Your task to perform on an android device: make emails show in primary in the gmail app Image 0: 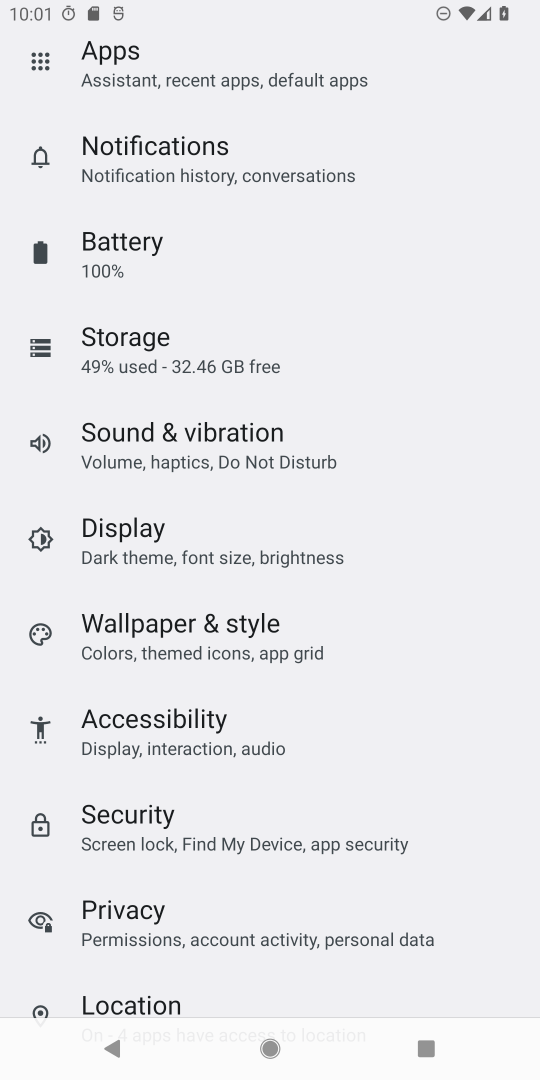
Step 0: press home button
Your task to perform on an android device: make emails show in primary in the gmail app Image 1: 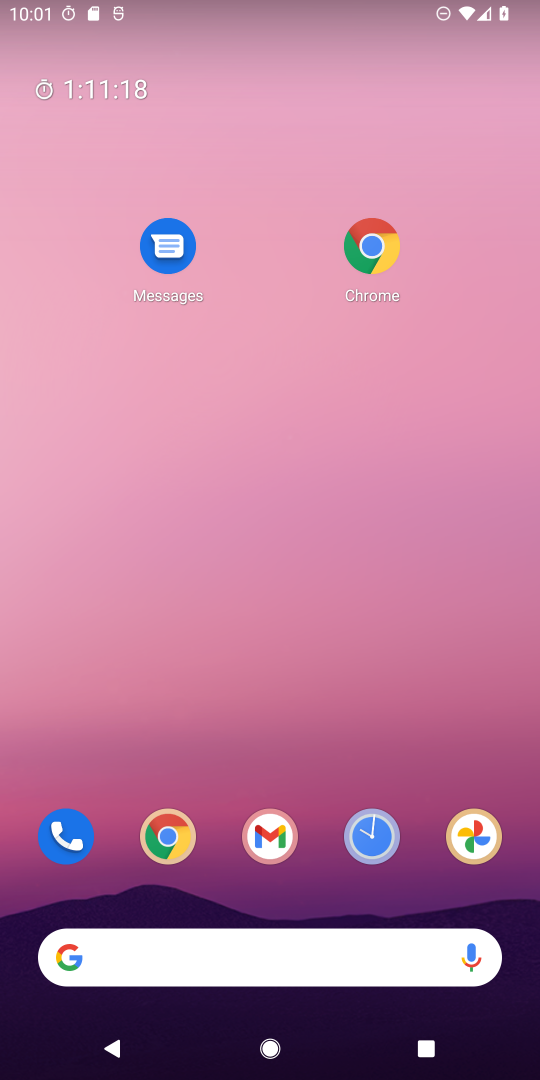
Step 1: drag from (315, 678) to (363, 187)
Your task to perform on an android device: make emails show in primary in the gmail app Image 2: 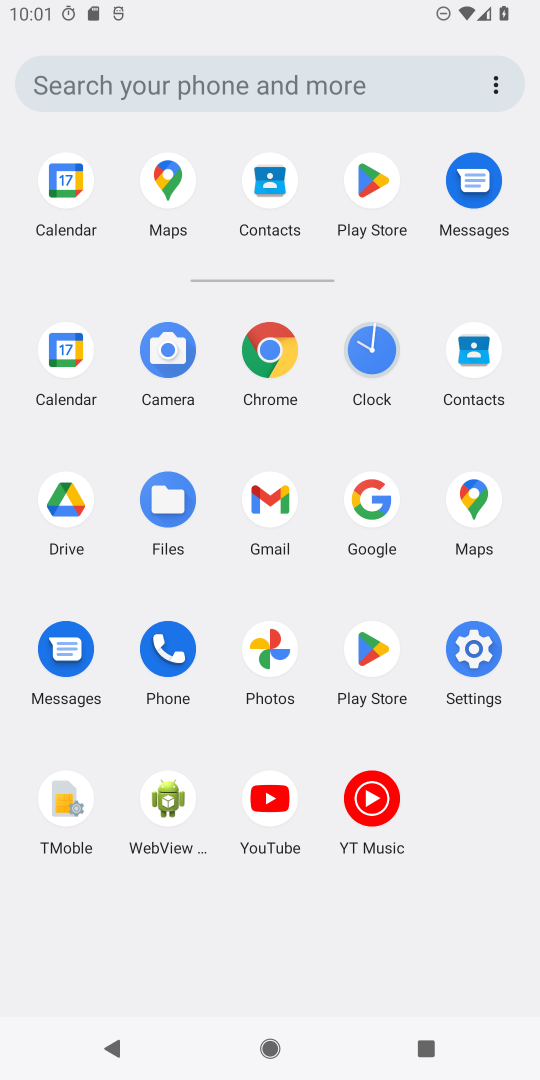
Step 2: click (247, 484)
Your task to perform on an android device: make emails show in primary in the gmail app Image 3: 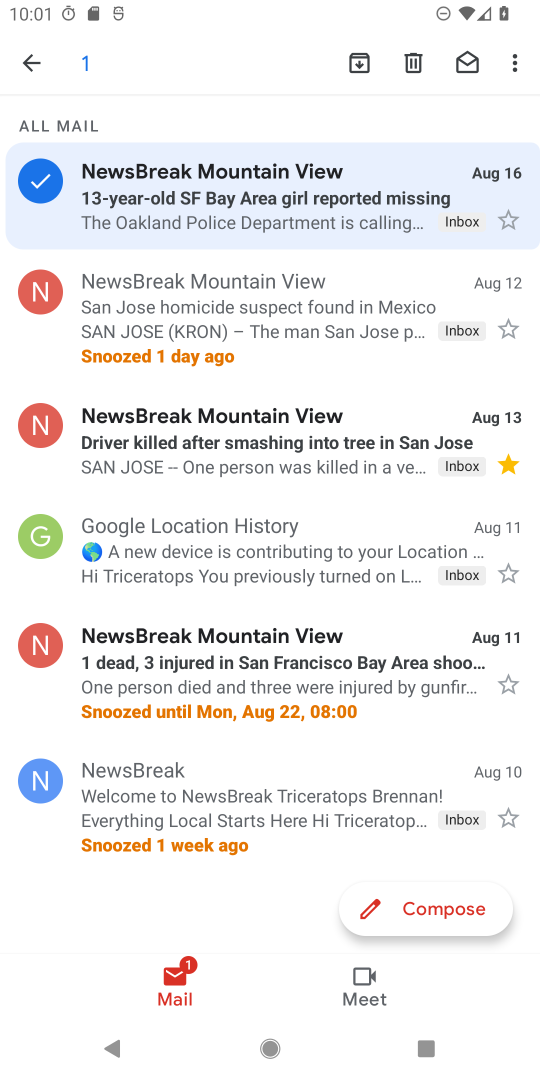
Step 3: click (25, 51)
Your task to perform on an android device: make emails show in primary in the gmail app Image 4: 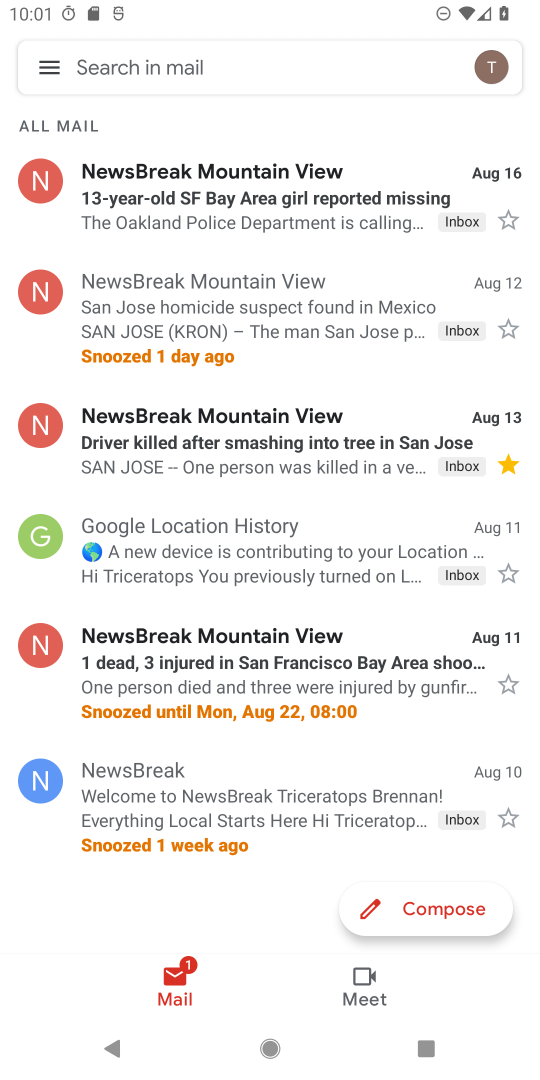
Step 4: click (47, 59)
Your task to perform on an android device: make emails show in primary in the gmail app Image 5: 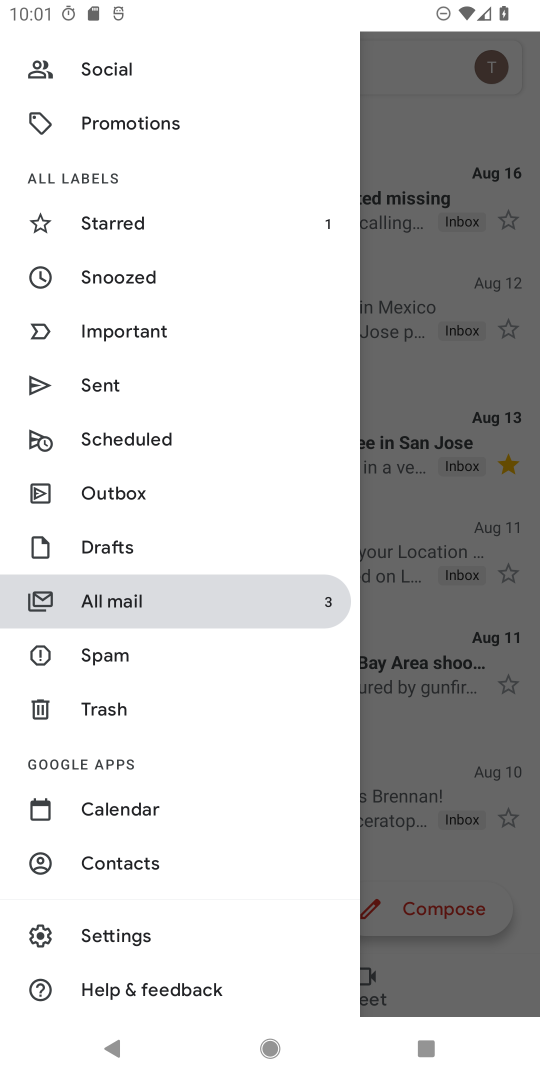
Step 5: click (138, 925)
Your task to perform on an android device: make emails show in primary in the gmail app Image 6: 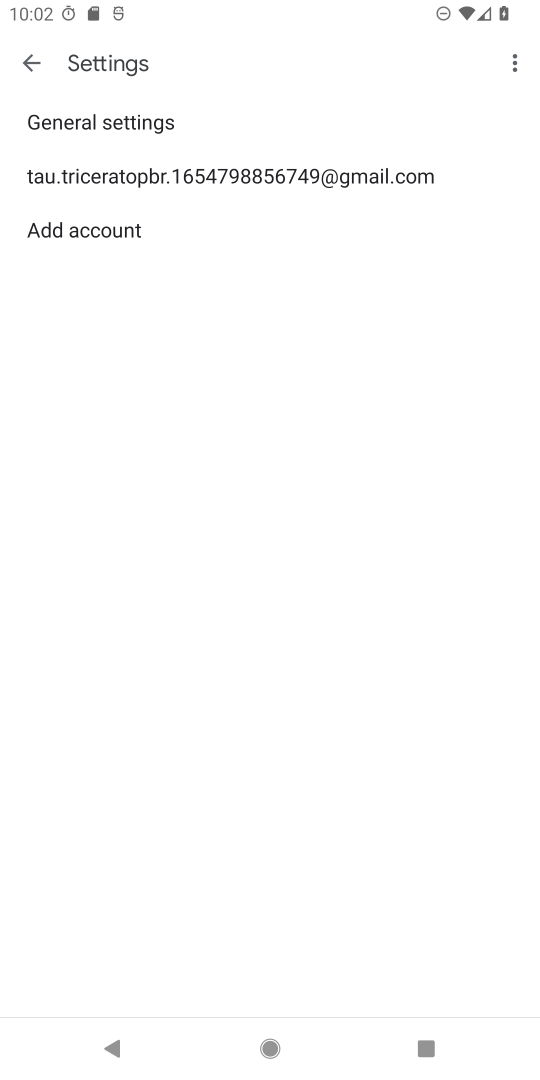
Step 6: click (155, 171)
Your task to perform on an android device: make emails show in primary in the gmail app Image 7: 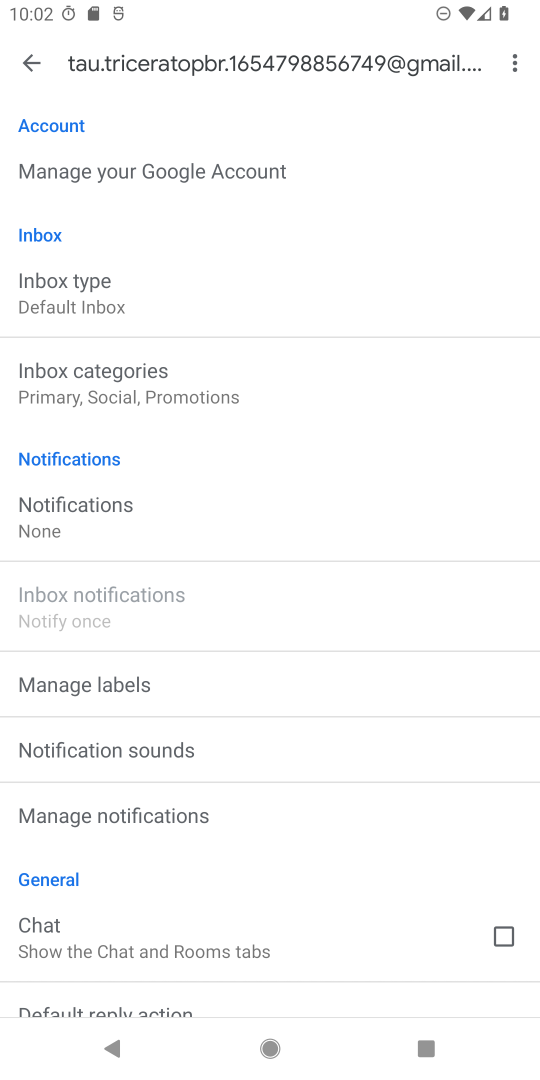
Step 7: click (77, 282)
Your task to perform on an android device: make emails show in primary in the gmail app Image 8: 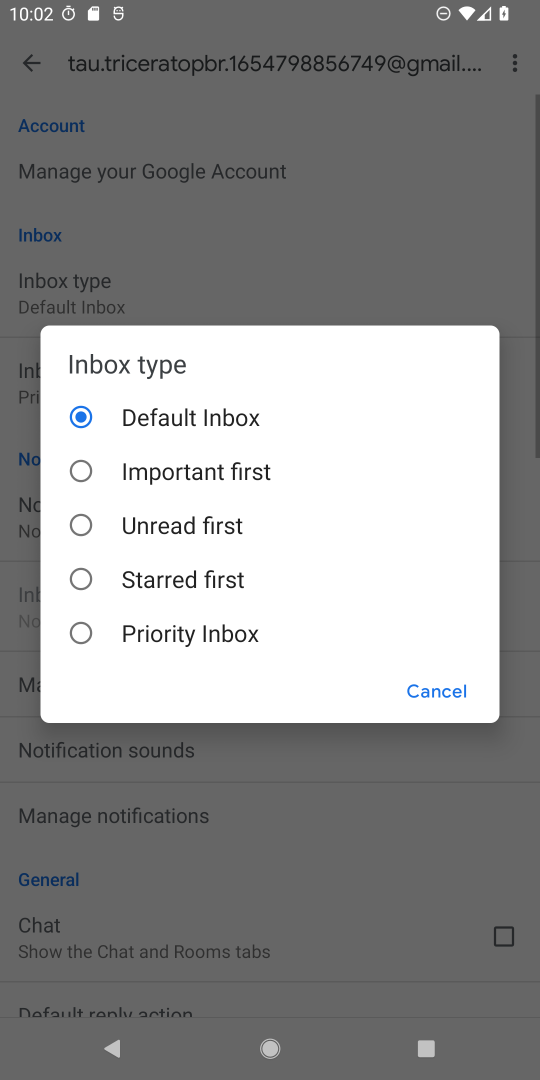
Step 8: click (297, 292)
Your task to perform on an android device: make emails show in primary in the gmail app Image 9: 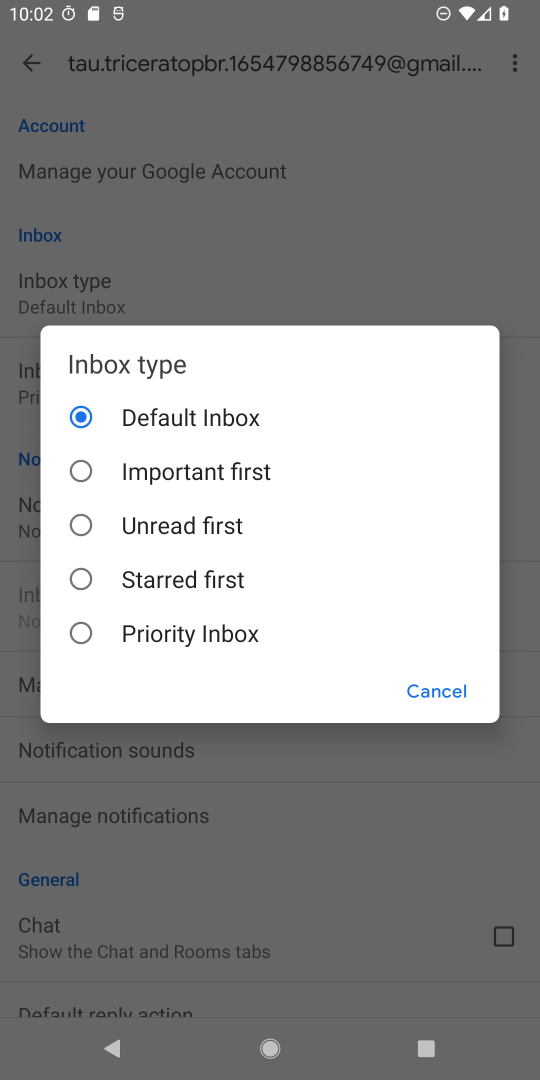
Step 9: click (2, 380)
Your task to perform on an android device: make emails show in primary in the gmail app Image 10: 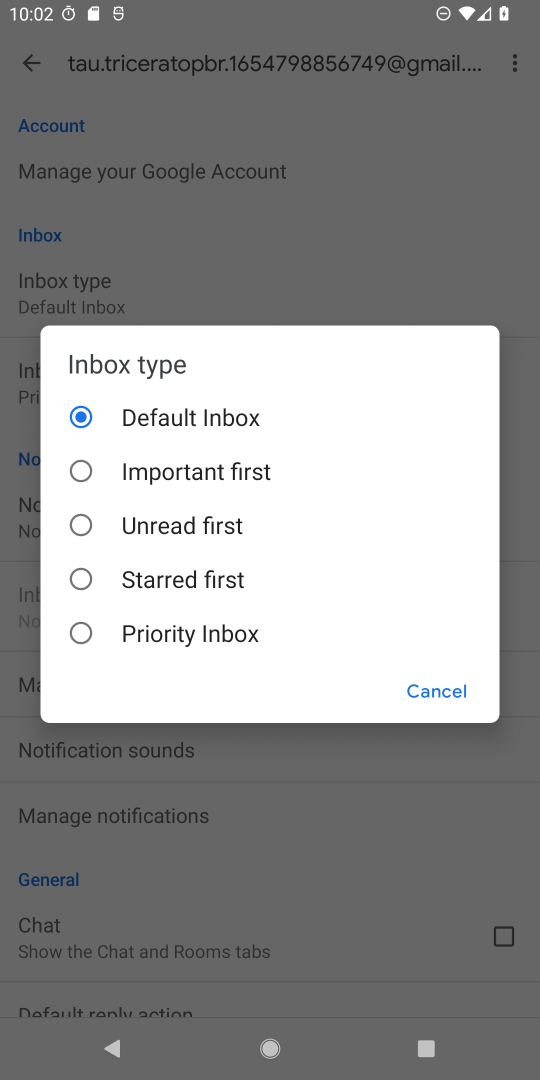
Step 10: click (10, 371)
Your task to perform on an android device: make emails show in primary in the gmail app Image 11: 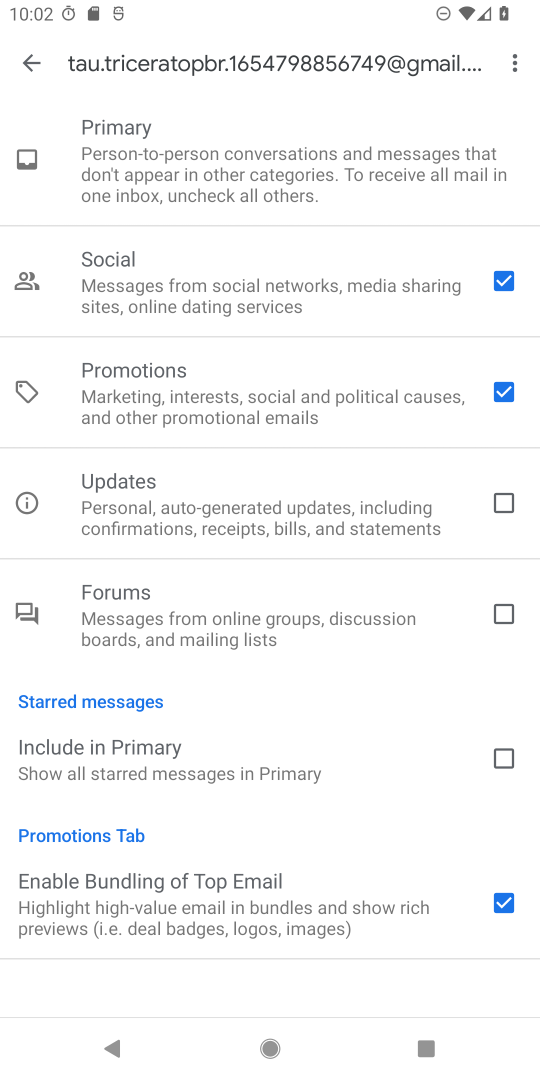
Step 11: drag from (227, 447) to (506, 743)
Your task to perform on an android device: make emails show in primary in the gmail app Image 12: 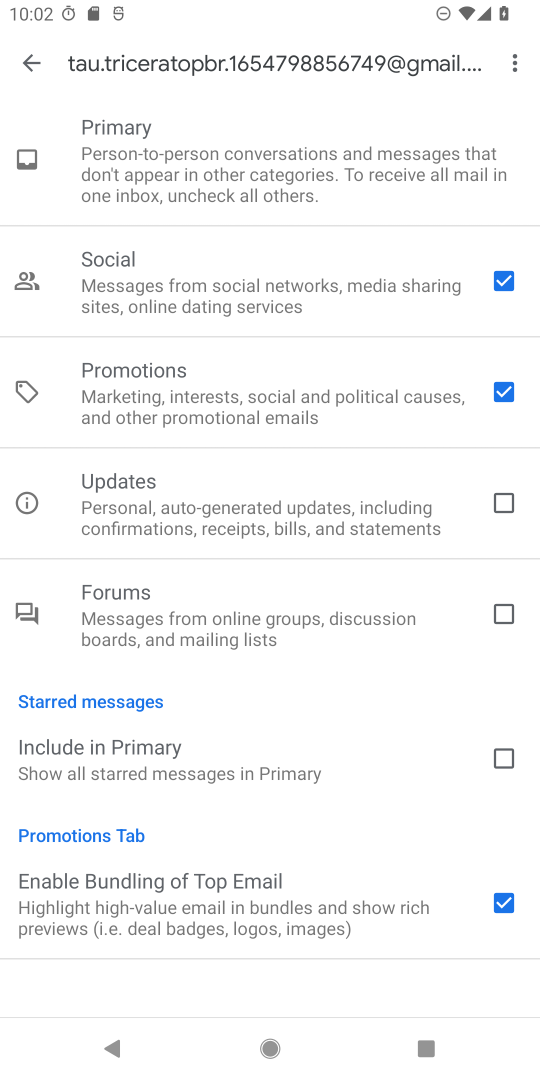
Step 12: click (442, 139)
Your task to perform on an android device: make emails show in primary in the gmail app Image 13: 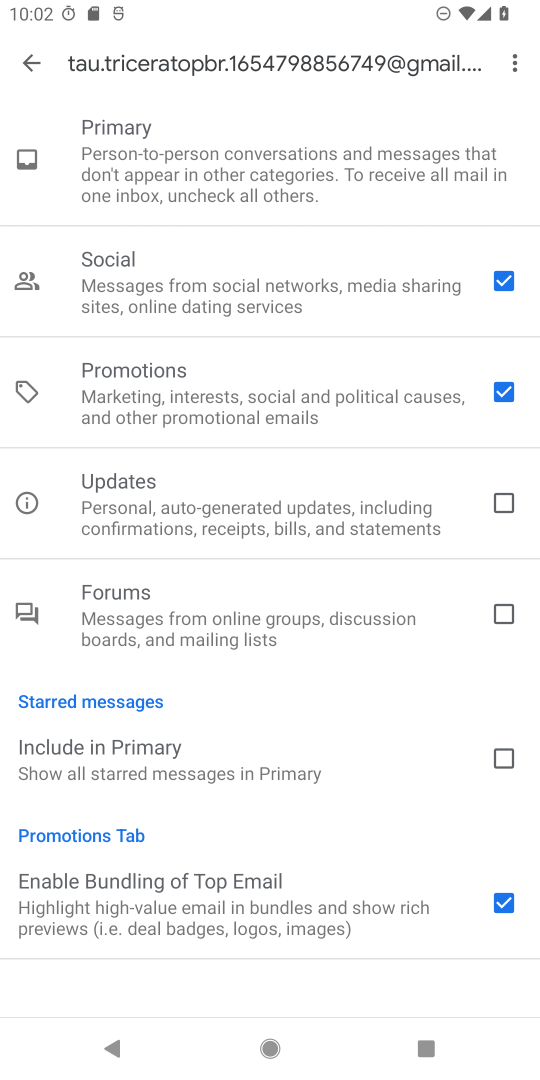
Step 13: click (509, 759)
Your task to perform on an android device: make emails show in primary in the gmail app Image 14: 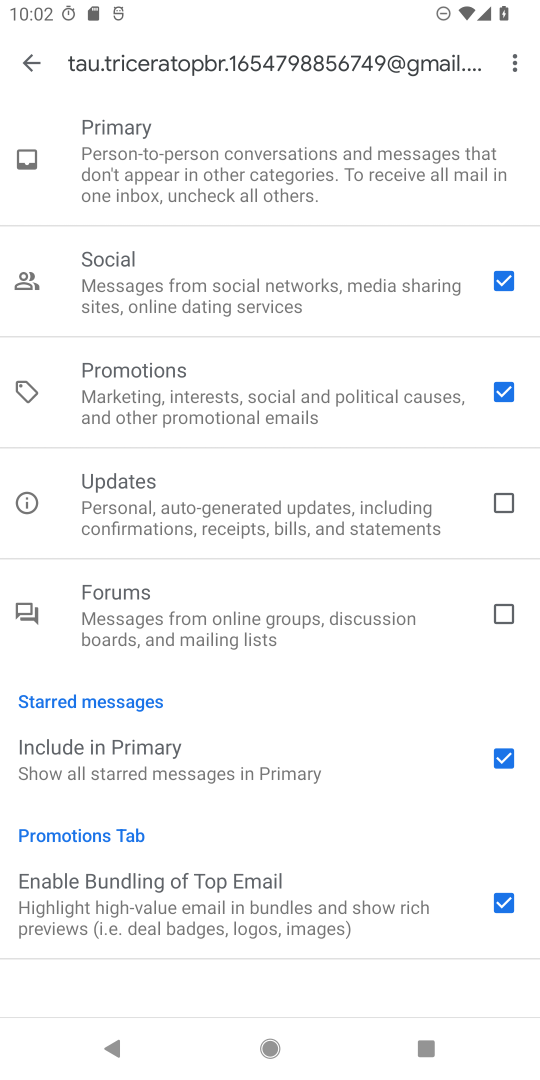
Step 14: click (268, 149)
Your task to perform on an android device: make emails show in primary in the gmail app Image 15: 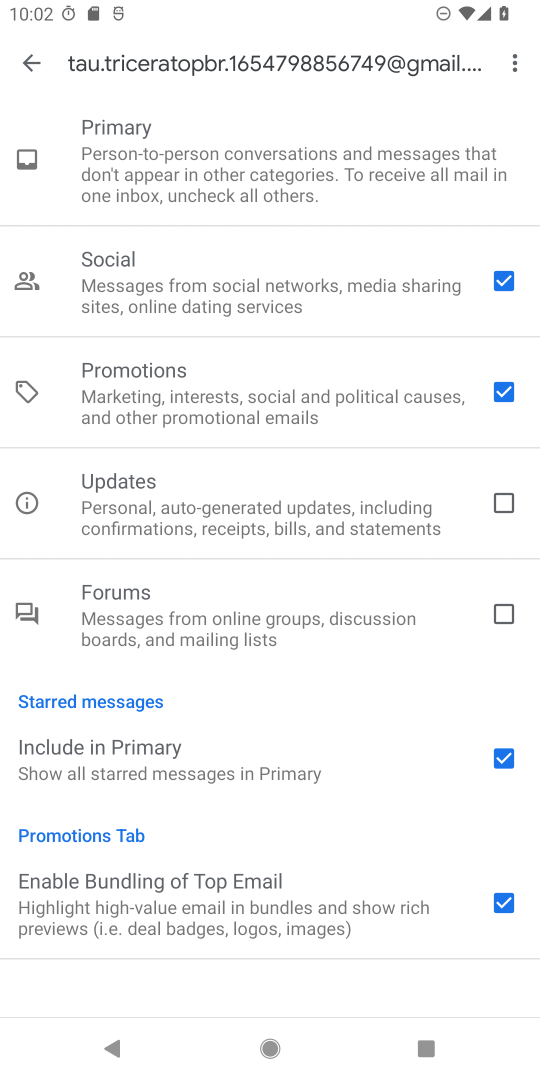
Step 15: task complete